Your task to perform on an android device: turn off wifi Image 0: 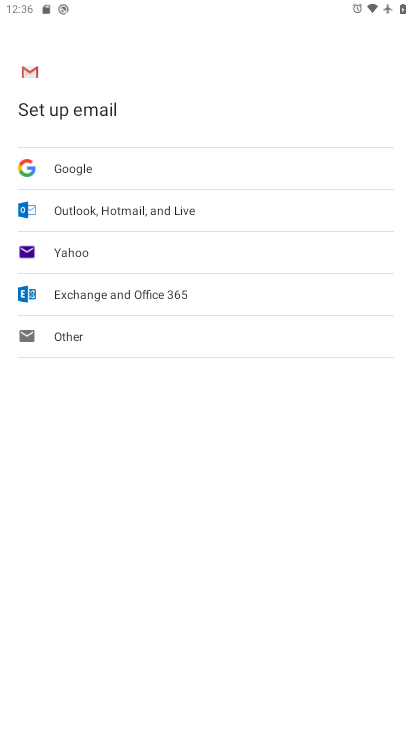
Step 0: press home button
Your task to perform on an android device: turn off wifi Image 1: 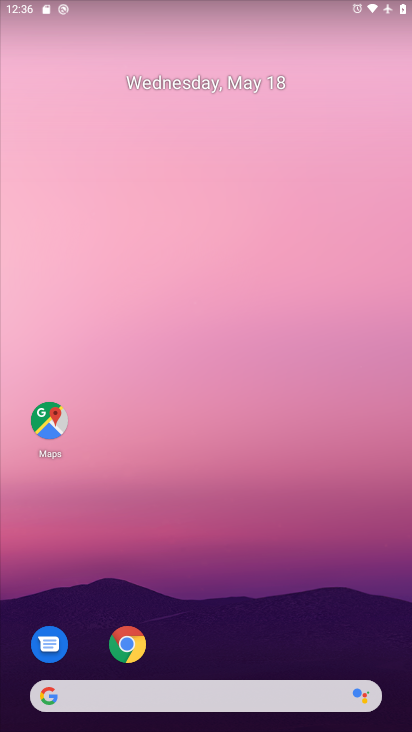
Step 1: drag from (222, 663) to (269, 96)
Your task to perform on an android device: turn off wifi Image 2: 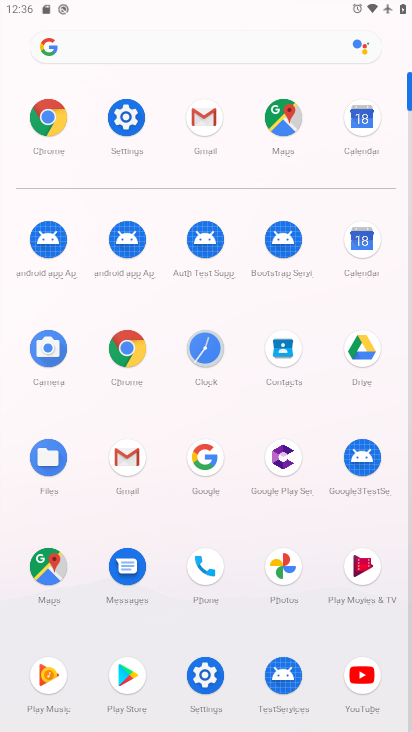
Step 2: click (124, 110)
Your task to perform on an android device: turn off wifi Image 3: 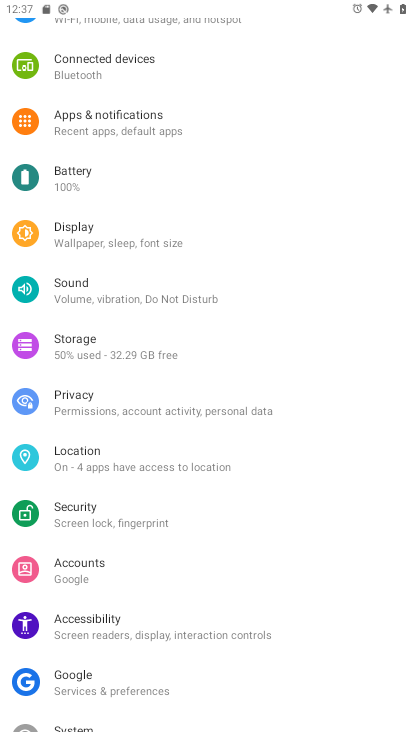
Step 3: drag from (126, 73) to (157, 618)
Your task to perform on an android device: turn off wifi Image 4: 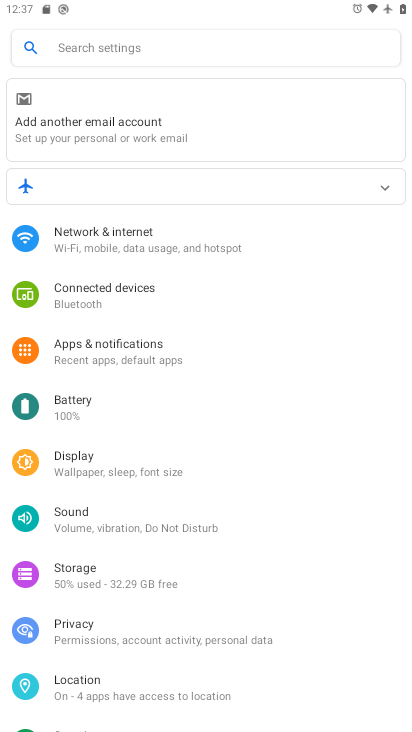
Step 4: drag from (143, 21) to (180, 564)
Your task to perform on an android device: turn off wifi Image 5: 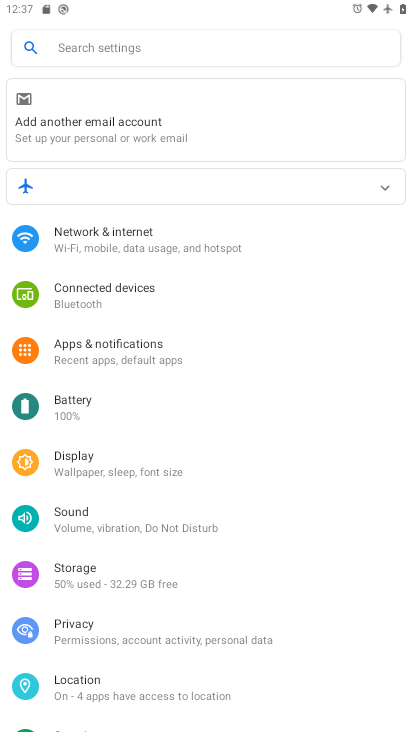
Step 5: drag from (200, 7) to (194, 609)
Your task to perform on an android device: turn off wifi Image 6: 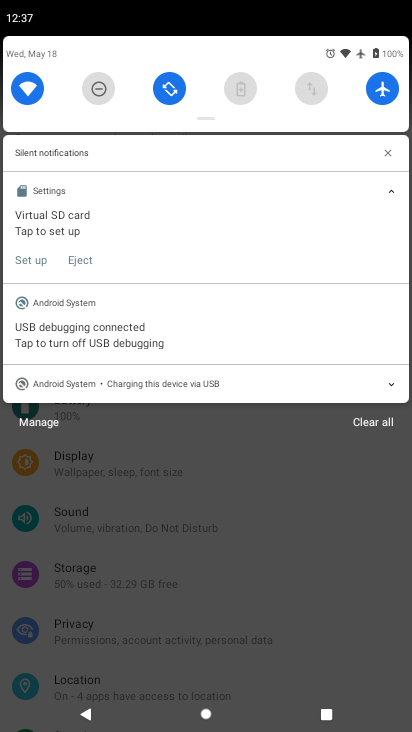
Step 6: click (28, 84)
Your task to perform on an android device: turn off wifi Image 7: 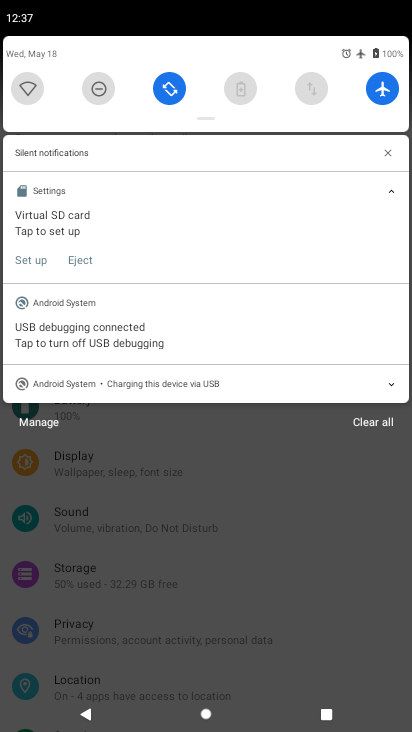
Step 7: task complete